Your task to perform on an android device: Is it going to rain tomorrow? Image 0: 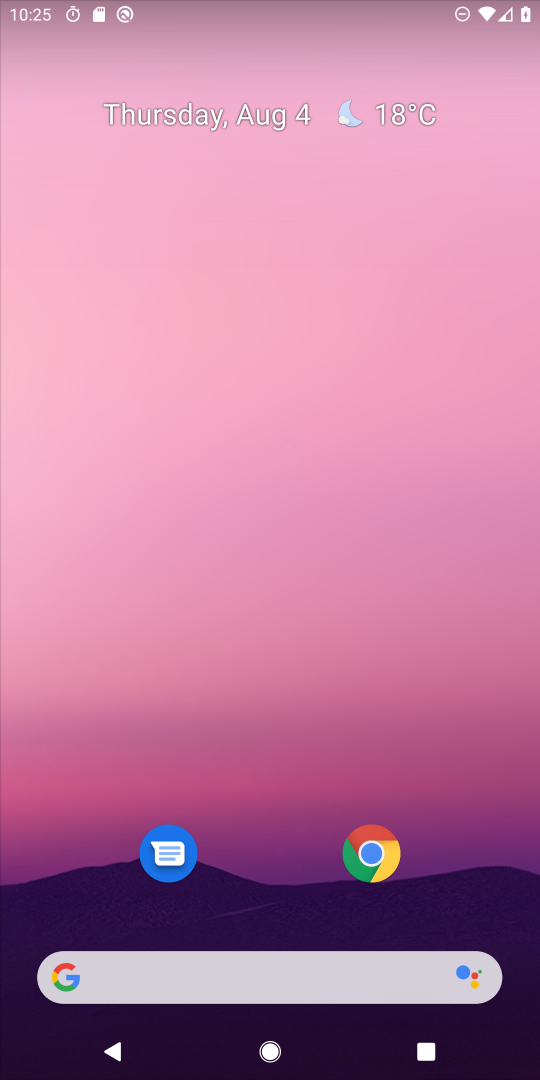
Step 0: click (267, 982)
Your task to perform on an android device: Is it going to rain tomorrow? Image 1: 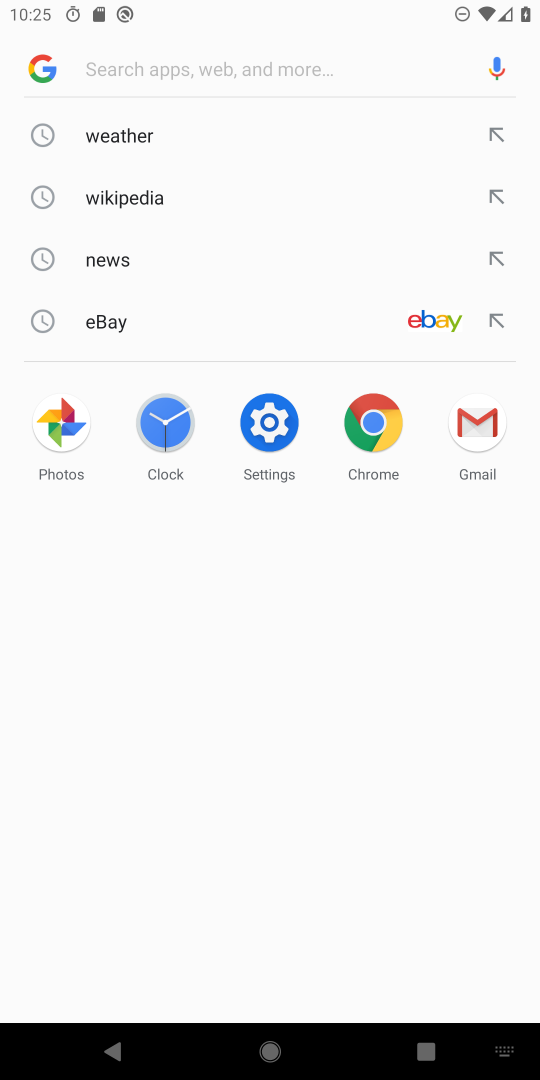
Step 1: click (120, 143)
Your task to perform on an android device: Is it going to rain tomorrow? Image 2: 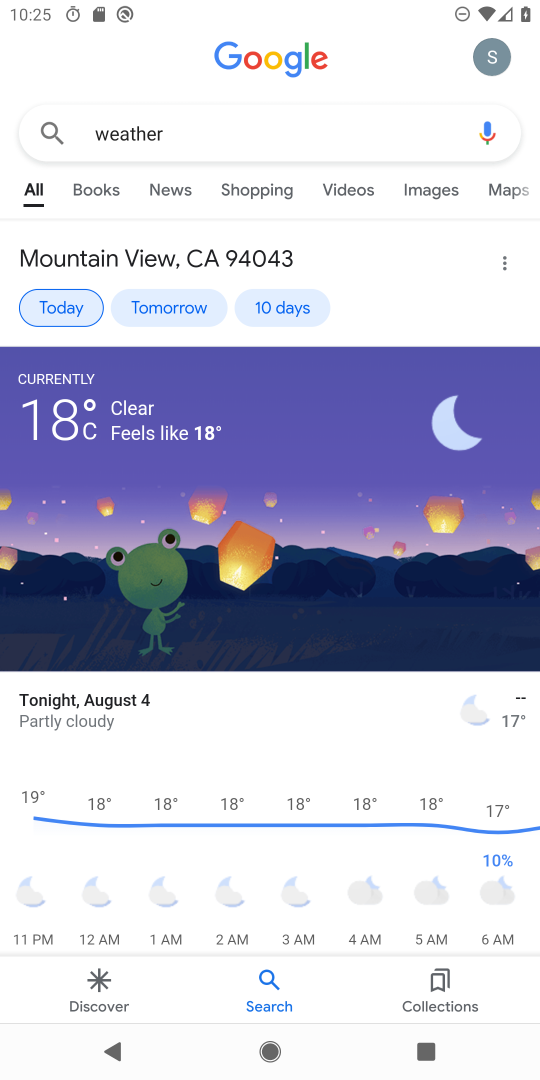
Step 2: click (161, 307)
Your task to perform on an android device: Is it going to rain tomorrow? Image 3: 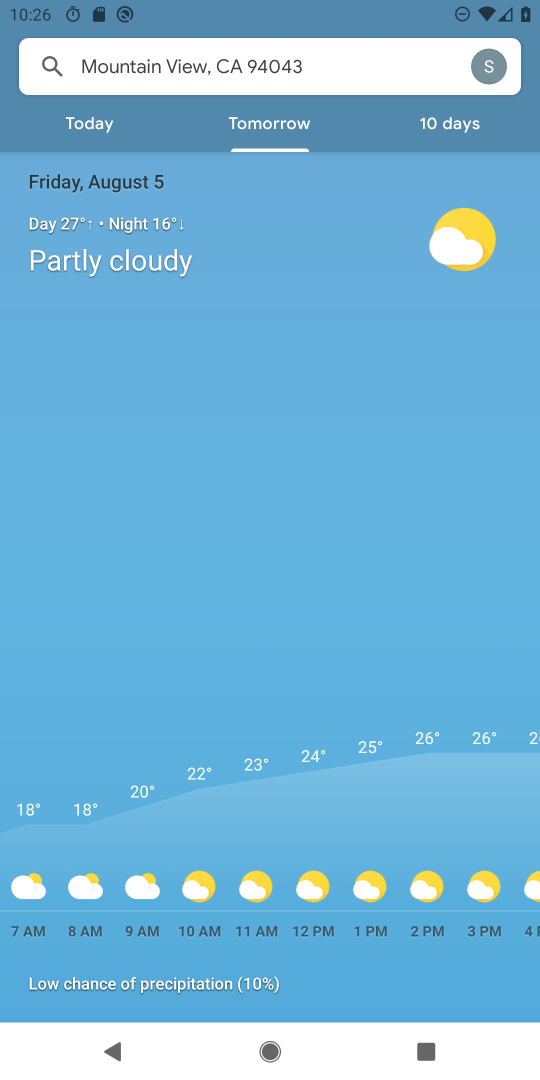
Step 3: task complete